Your task to perform on an android device: Go to wifi settings Image 0: 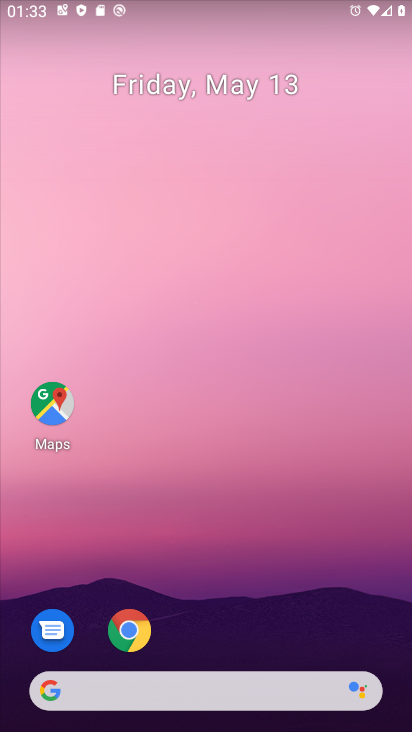
Step 0: drag from (281, 657) to (216, 323)
Your task to perform on an android device: Go to wifi settings Image 1: 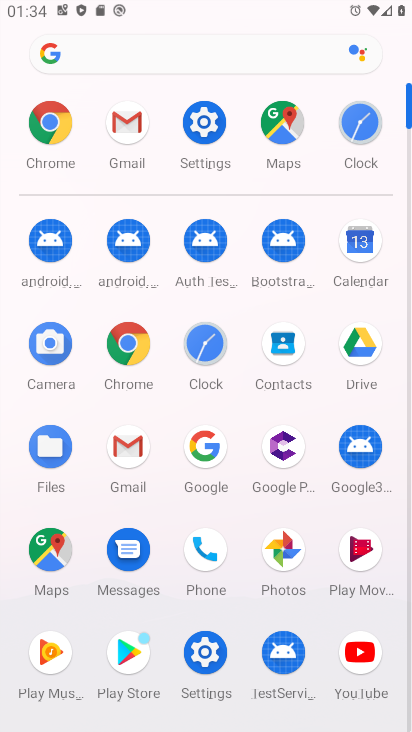
Step 1: click (203, 129)
Your task to perform on an android device: Go to wifi settings Image 2: 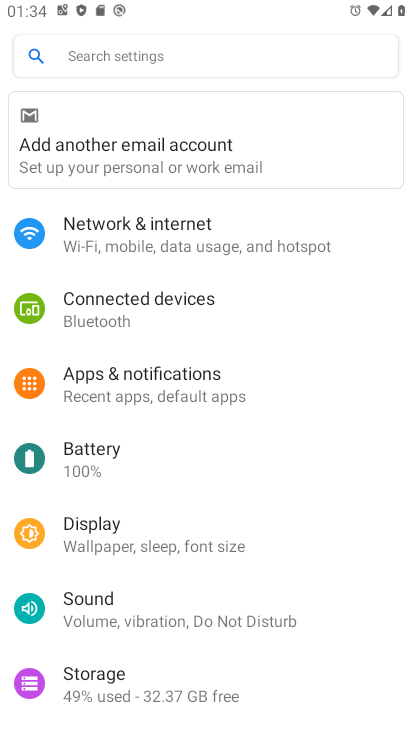
Step 2: click (121, 236)
Your task to perform on an android device: Go to wifi settings Image 3: 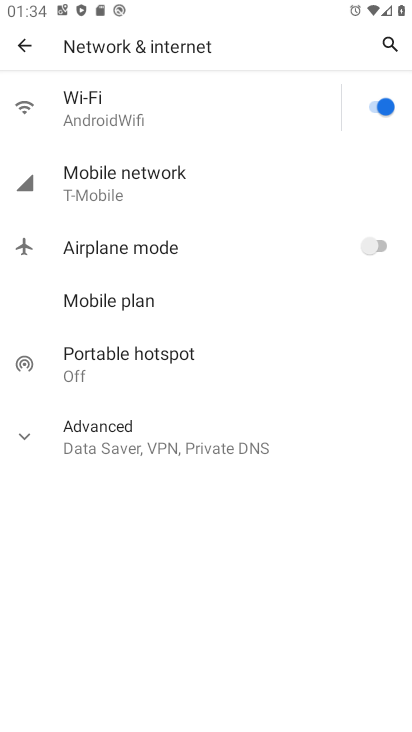
Step 3: click (139, 127)
Your task to perform on an android device: Go to wifi settings Image 4: 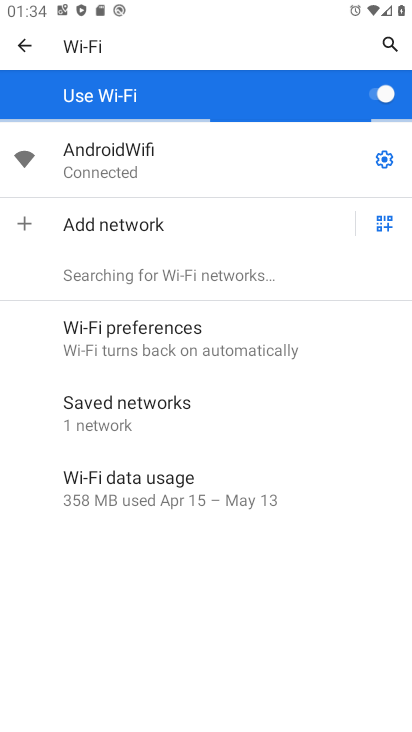
Step 4: task complete